Your task to perform on an android device: Open Google Chrome and open the bookmarks view Image 0: 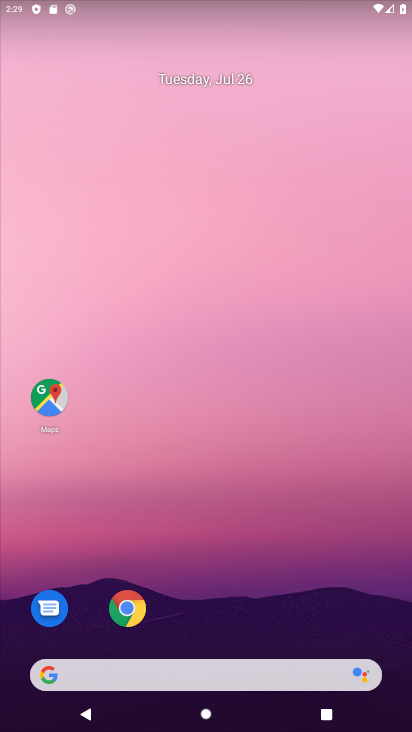
Step 0: click (132, 614)
Your task to perform on an android device: Open Google Chrome and open the bookmarks view Image 1: 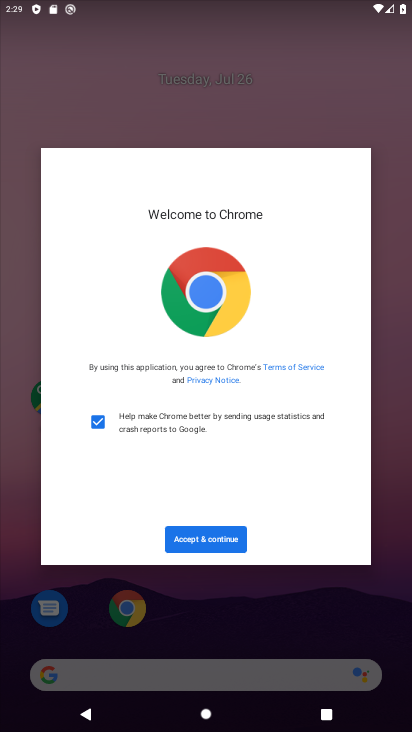
Step 1: click (234, 552)
Your task to perform on an android device: Open Google Chrome and open the bookmarks view Image 2: 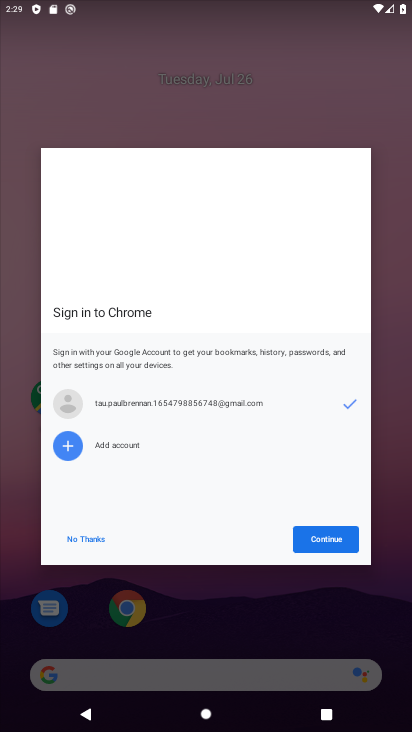
Step 2: click (318, 545)
Your task to perform on an android device: Open Google Chrome and open the bookmarks view Image 3: 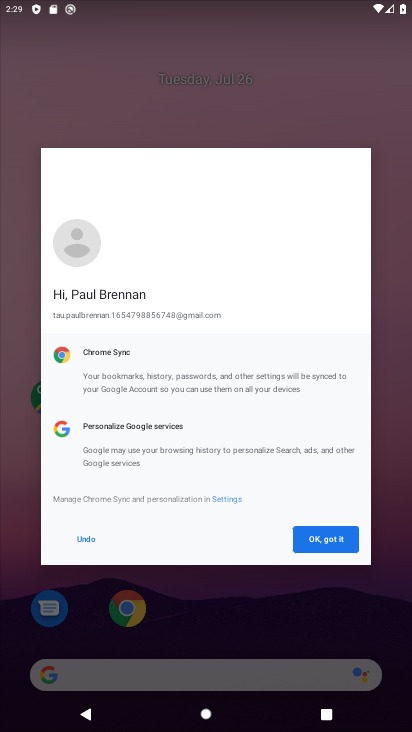
Step 3: click (321, 539)
Your task to perform on an android device: Open Google Chrome and open the bookmarks view Image 4: 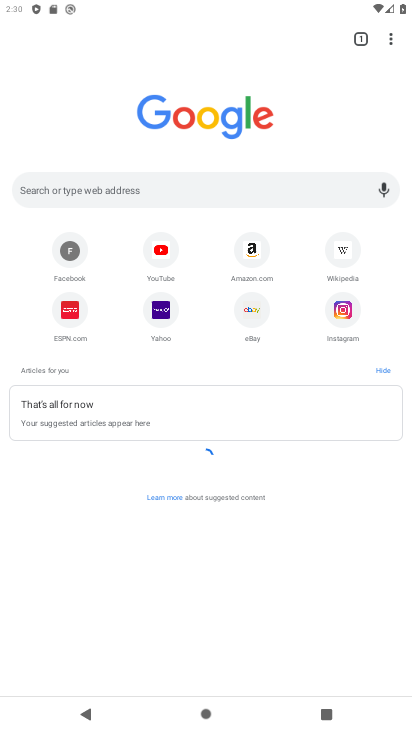
Step 4: click (382, 36)
Your task to perform on an android device: Open Google Chrome and open the bookmarks view Image 5: 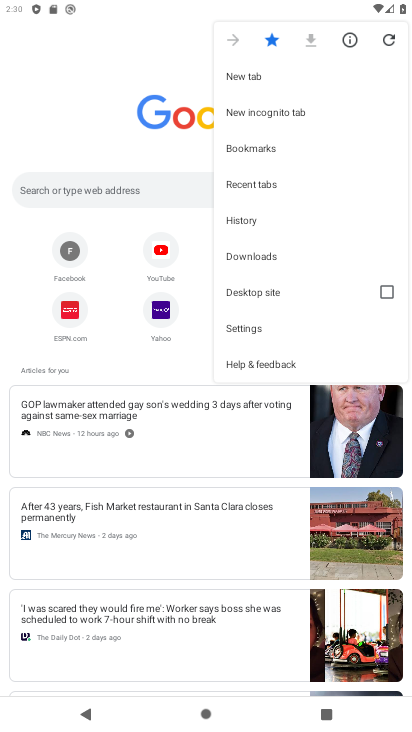
Step 5: click (282, 143)
Your task to perform on an android device: Open Google Chrome and open the bookmarks view Image 6: 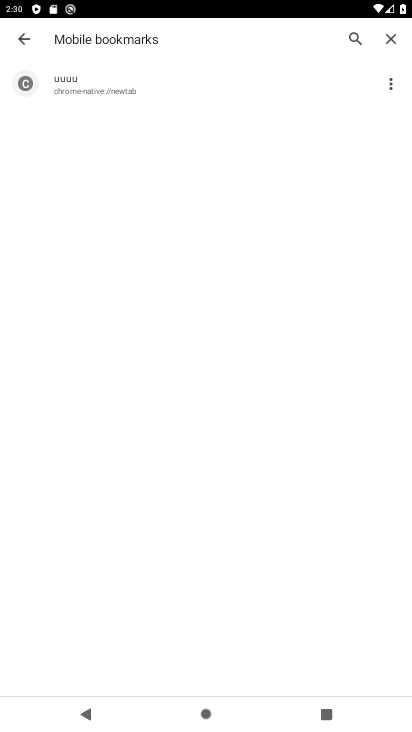
Step 6: task complete